Your task to perform on an android device: add a contact in the contacts app Image 0: 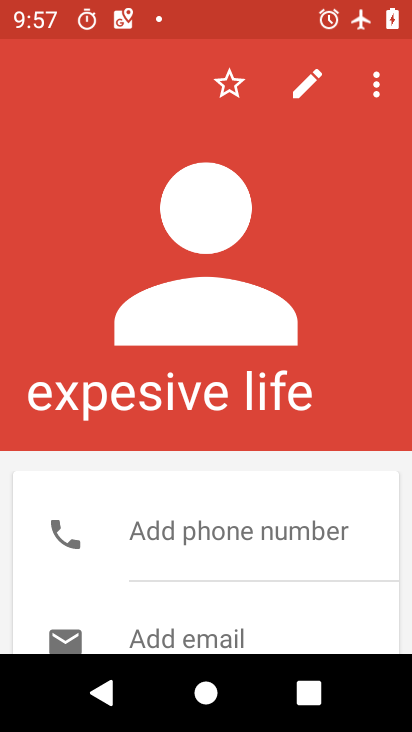
Step 0: press home button
Your task to perform on an android device: add a contact in the contacts app Image 1: 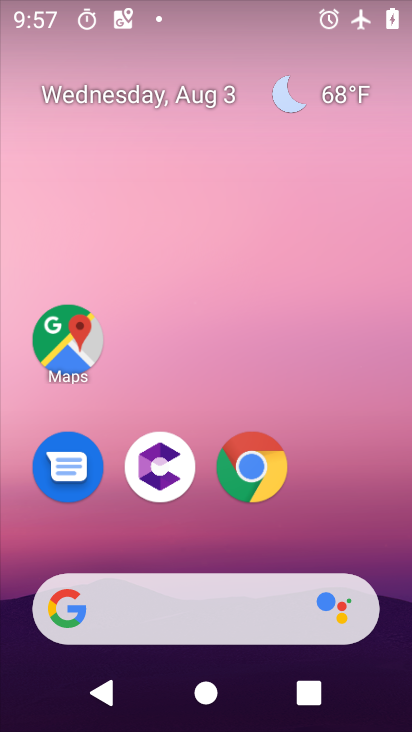
Step 1: drag from (334, 482) to (308, 33)
Your task to perform on an android device: add a contact in the contacts app Image 2: 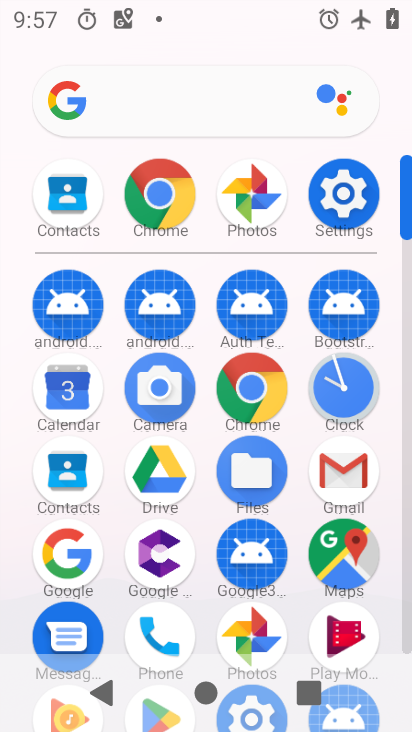
Step 2: click (72, 466)
Your task to perform on an android device: add a contact in the contacts app Image 3: 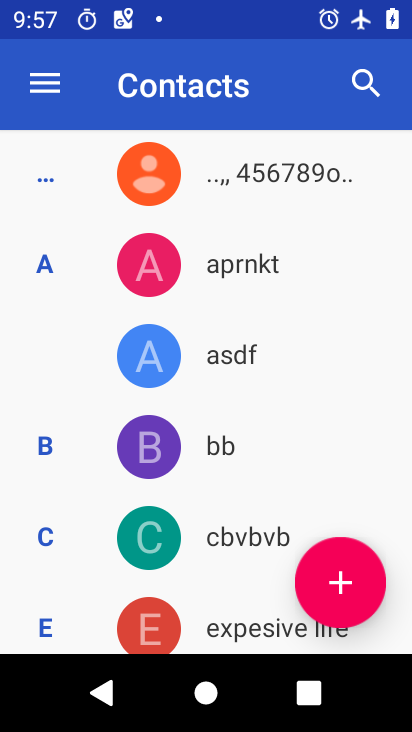
Step 3: click (366, 602)
Your task to perform on an android device: add a contact in the contacts app Image 4: 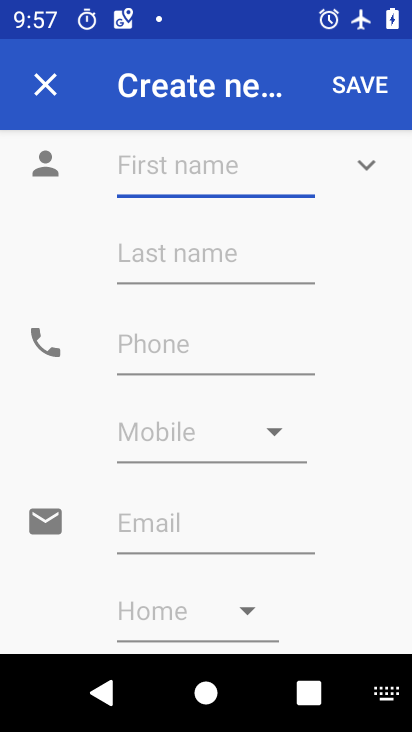
Step 4: type "future"
Your task to perform on an android device: add a contact in the contacts app Image 5: 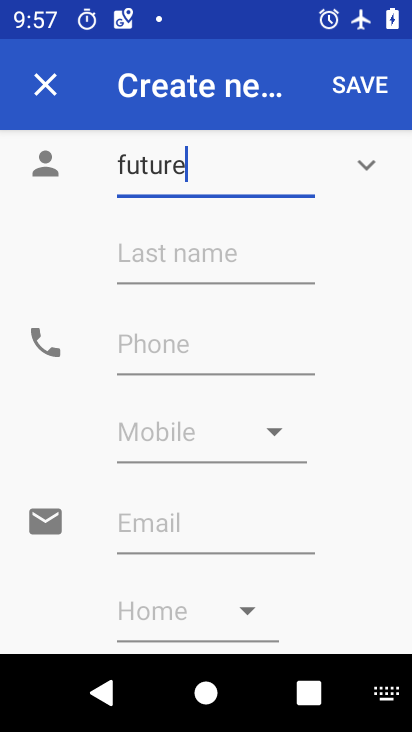
Step 5: click (369, 80)
Your task to perform on an android device: add a contact in the contacts app Image 6: 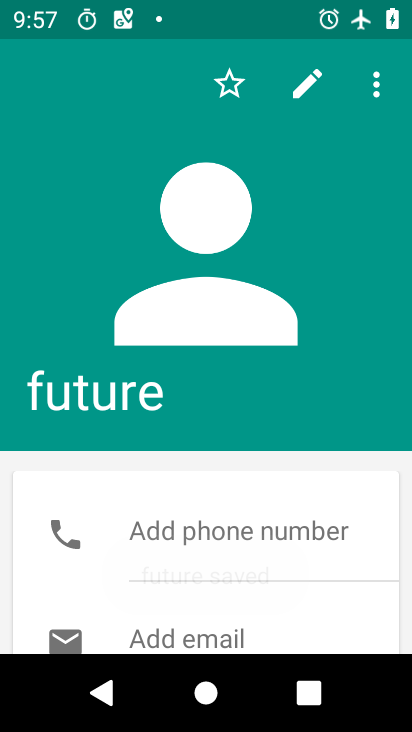
Step 6: task complete